Your task to perform on an android device: Open wifi settings Image 0: 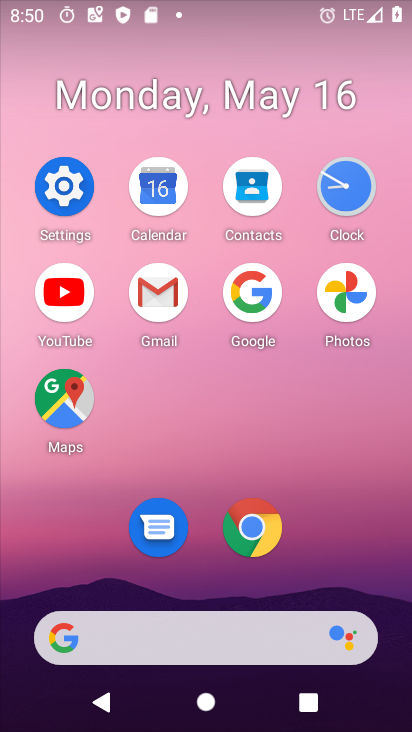
Step 0: click (68, 205)
Your task to perform on an android device: Open wifi settings Image 1: 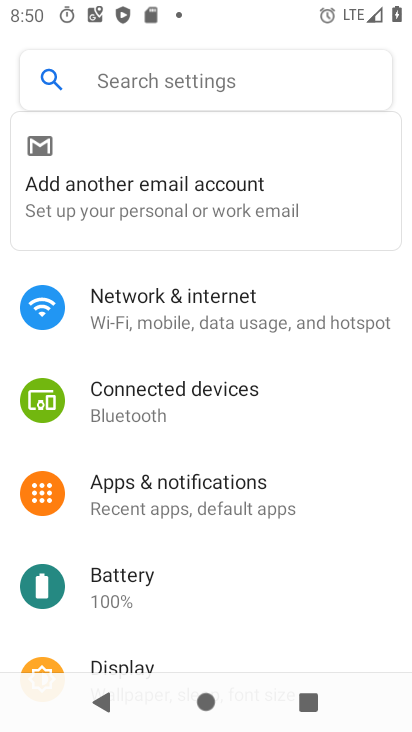
Step 1: click (198, 316)
Your task to perform on an android device: Open wifi settings Image 2: 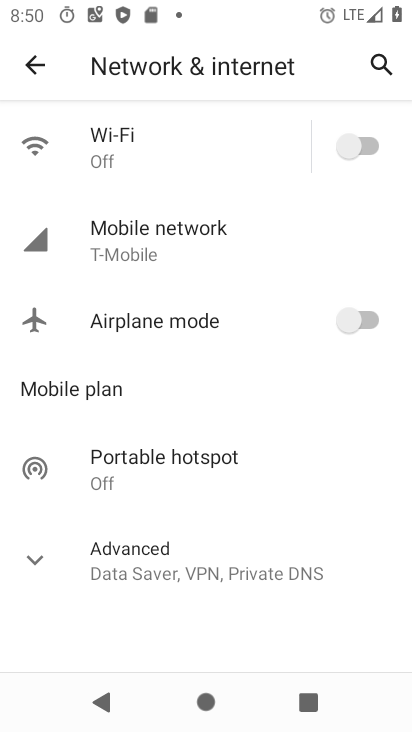
Step 2: click (348, 158)
Your task to perform on an android device: Open wifi settings Image 3: 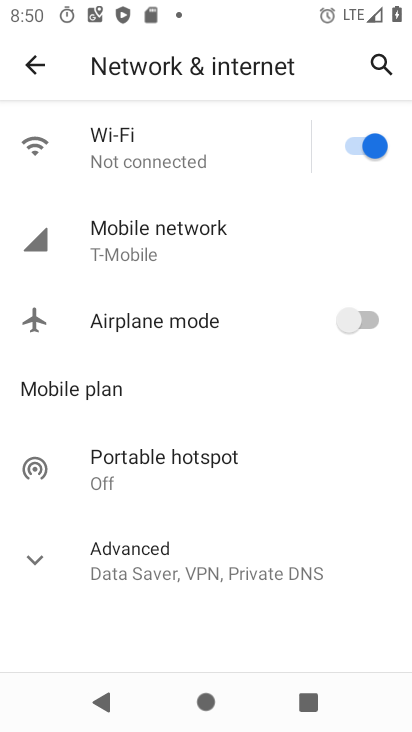
Step 3: click (232, 147)
Your task to perform on an android device: Open wifi settings Image 4: 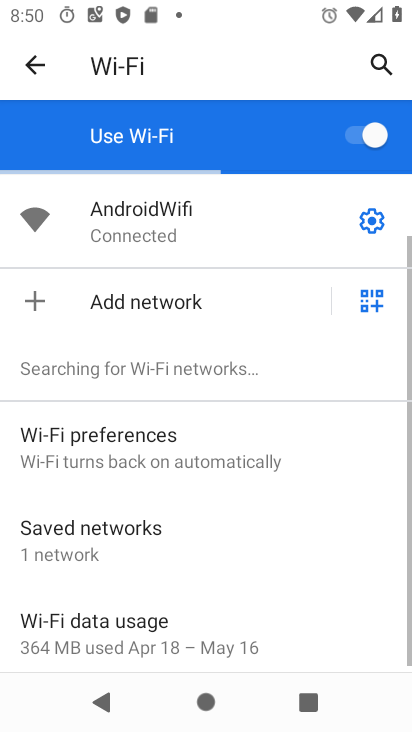
Step 4: click (380, 216)
Your task to perform on an android device: Open wifi settings Image 5: 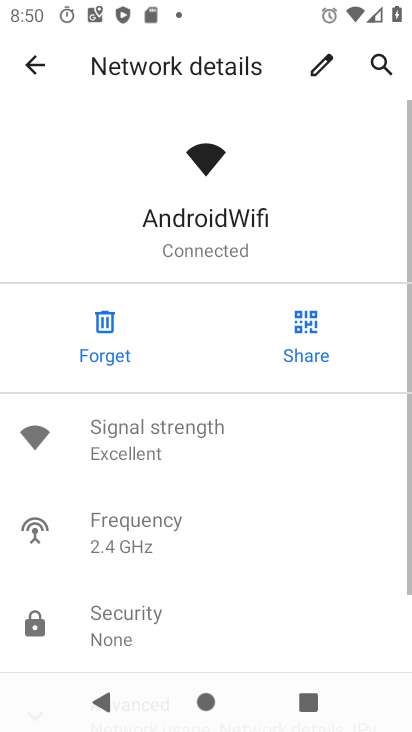
Step 5: task complete